Your task to perform on an android device: Open Google Chrome and open the bookmarks view Image 0: 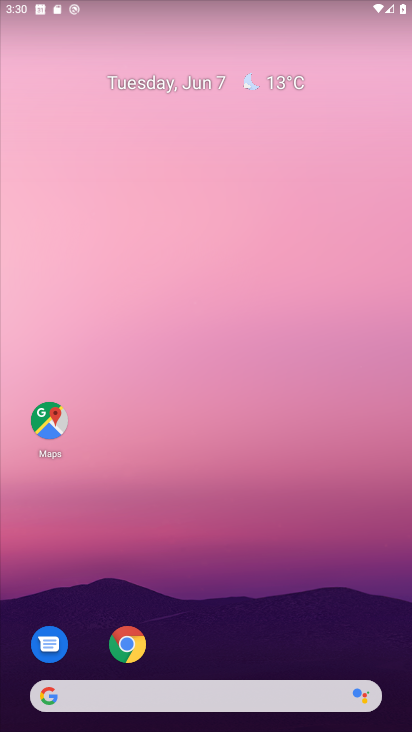
Step 0: drag from (312, 643) to (355, 294)
Your task to perform on an android device: Open Google Chrome and open the bookmarks view Image 1: 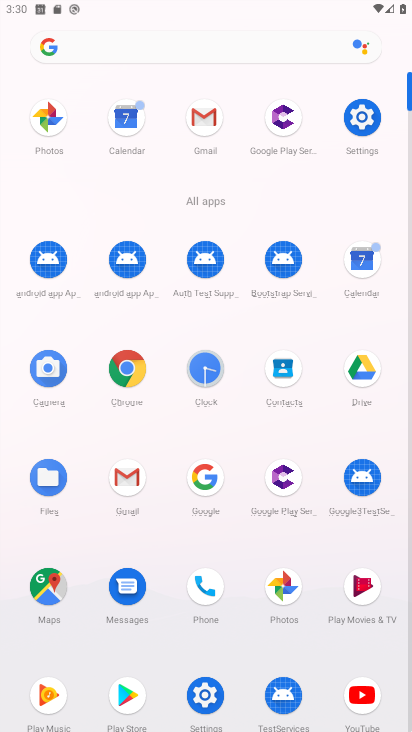
Step 1: click (126, 373)
Your task to perform on an android device: Open Google Chrome and open the bookmarks view Image 2: 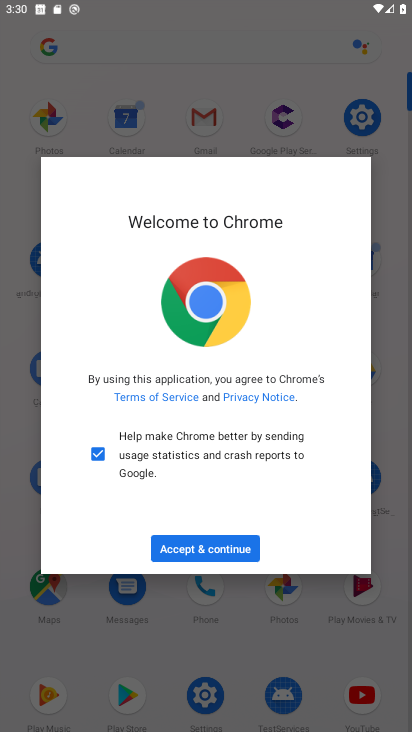
Step 2: click (205, 543)
Your task to perform on an android device: Open Google Chrome and open the bookmarks view Image 3: 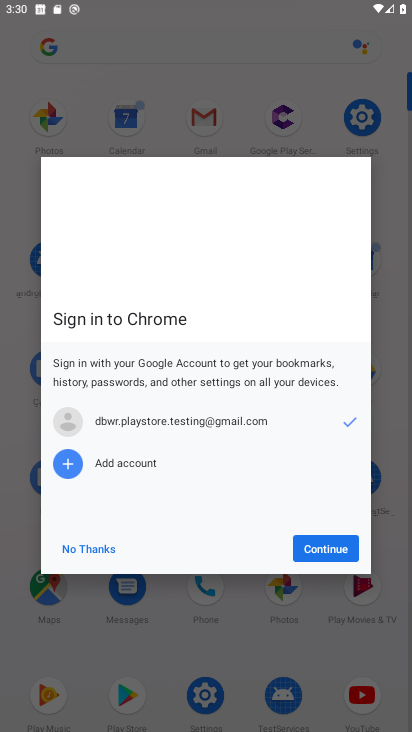
Step 3: click (308, 543)
Your task to perform on an android device: Open Google Chrome and open the bookmarks view Image 4: 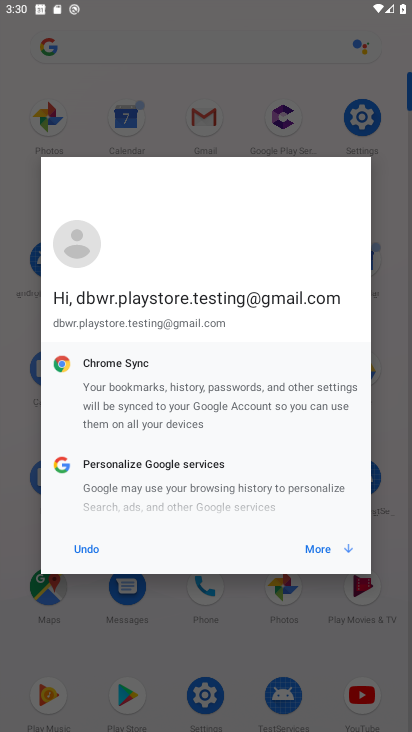
Step 4: click (308, 543)
Your task to perform on an android device: Open Google Chrome and open the bookmarks view Image 5: 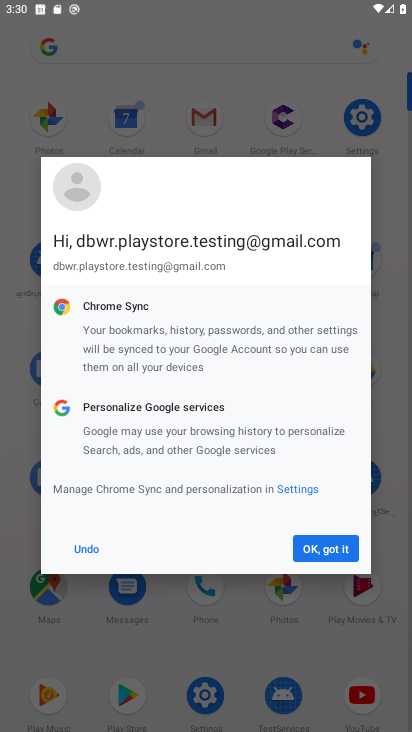
Step 5: click (308, 543)
Your task to perform on an android device: Open Google Chrome and open the bookmarks view Image 6: 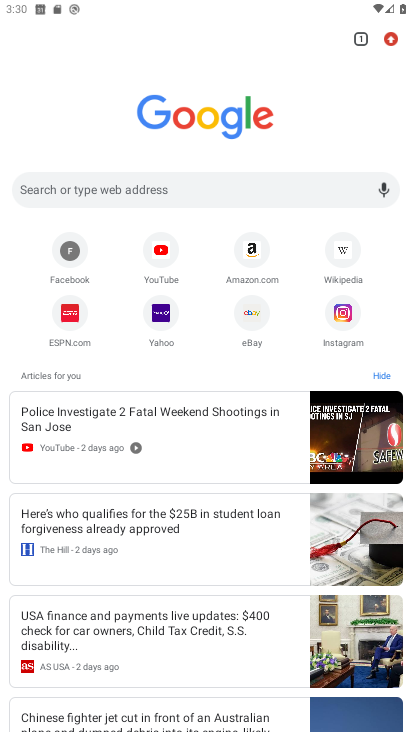
Step 6: click (394, 41)
Your task to perform on an android device: Open Google Chrome and open the bookmarks view Image 7: 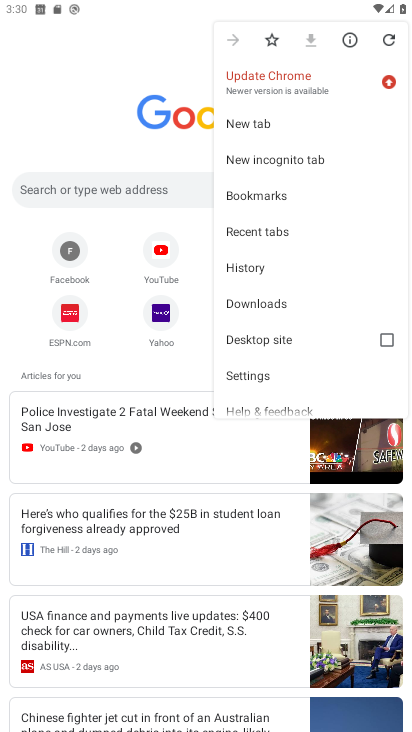
Step 7: click (269, 192)
Your task to perform on an android device: Open Google Chrome and open the bookmarks view Image 8: 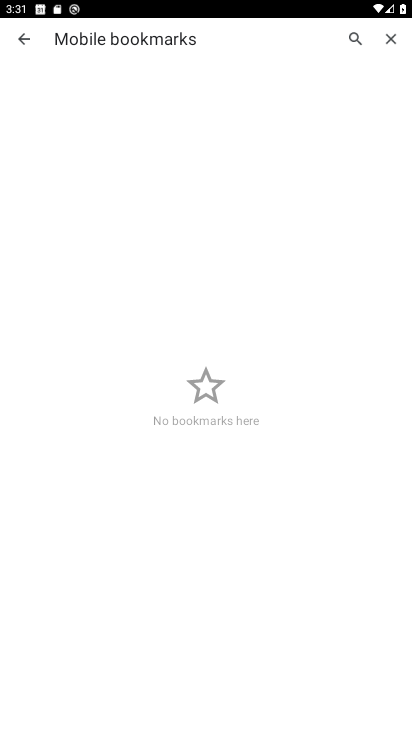
Step 8: task complete